Your task to perform on an android device: Go to notification settings Image 0: 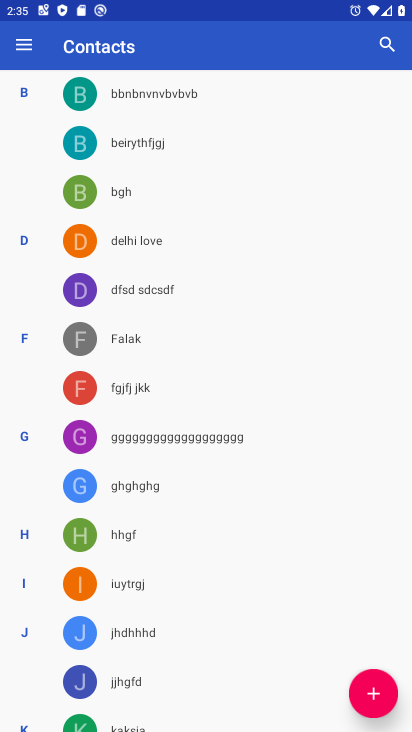
Step 0: press home button
Your task to perform on an android device: Go to notification settings Image 1: 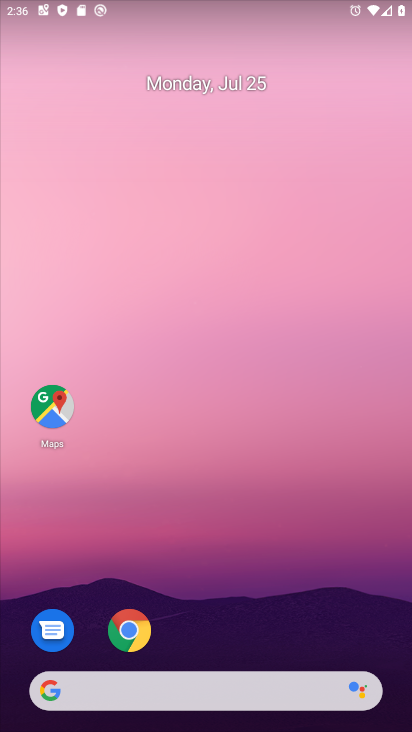
Step 1: drag from (217, 656) to (165, 6)
Your task to perform on an android device: Go to notification settings Image 2: 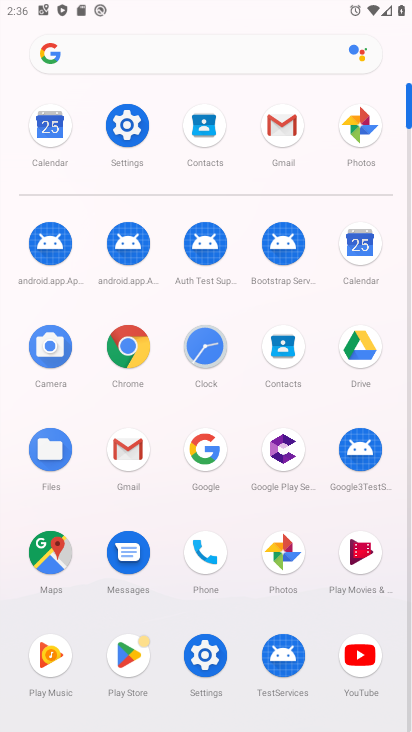
Step 2: click (221, 662)
Your task to perform on an android device: Go to notification settings Image 3: 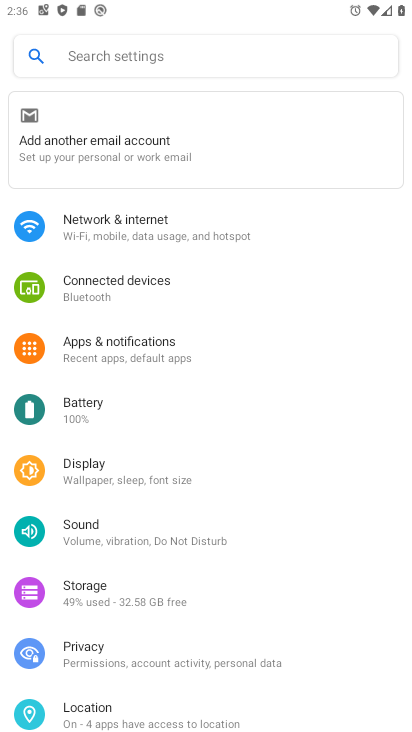
Step 3: click (131, 359)
Your task to perform on an android device: Go to notification settings Image 4: 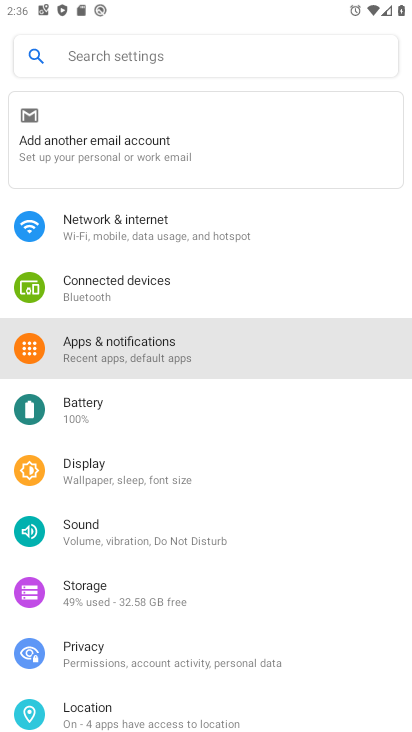
Step 4: task complete